Your task to perform on an android device: open app "Viber Messenger" Image 0: 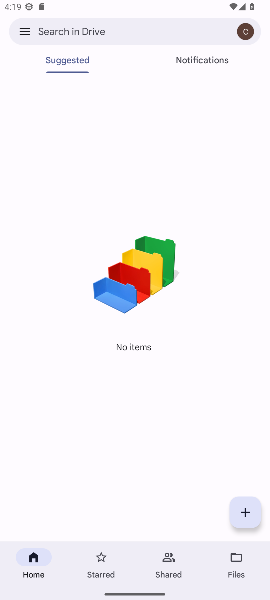
Step 0: press home button
Your task to perform on an android device: open app "Viber Messenger" Image 1: 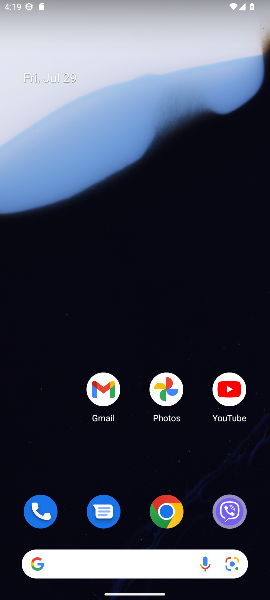
Step 1: drag from (145, 547) to (160, 72)
Your task to perform on an android device: open app "Viber Messenger" Image 2: 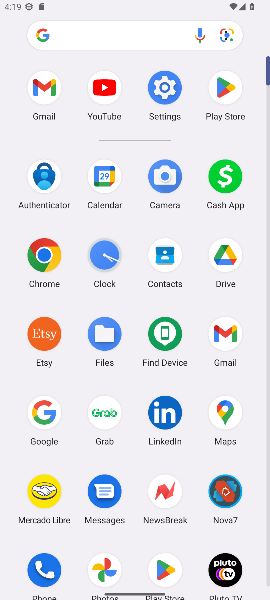
Step 2: click (222, 93)
Your task to perform on an android device: open app "Viber Messenger" Image 3: 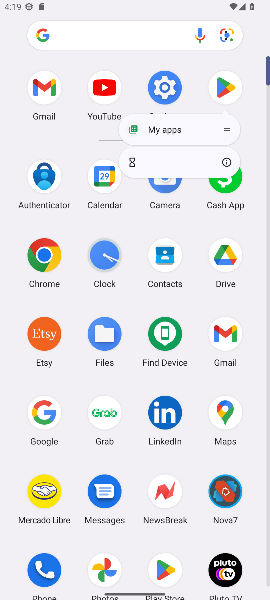
Step 3: click (222, 87)
Your task to perform on an android device: open app "Viber Messenger" Image 4: 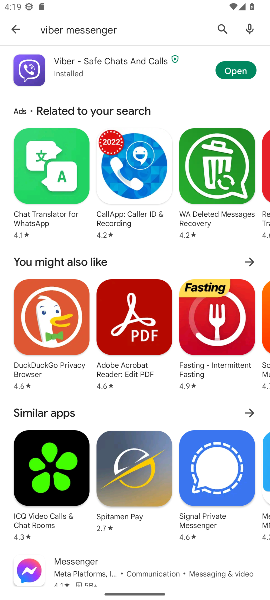
Step 4: click (15, 27)
Your task to perform on an android device: open app "Viber Messenger" Image 5: 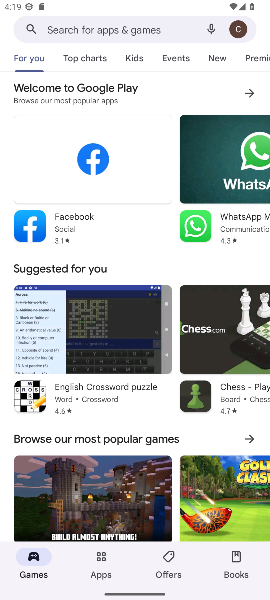
Step 5: click (79, 35)
Your task to perform on an android device: open app "Viber Messenger" Image 6: 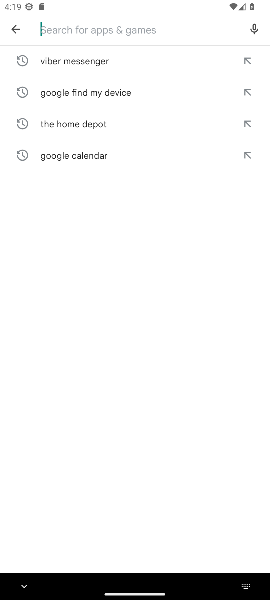
Step 6: click (95, 58)
Your task to perform on an android device: open app "Viber Messenger" Image 7: 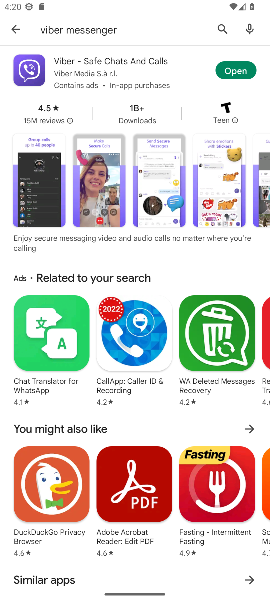
Step 7: task complete